Your task to perform on an android device: Go to ESPN.com Image 0: 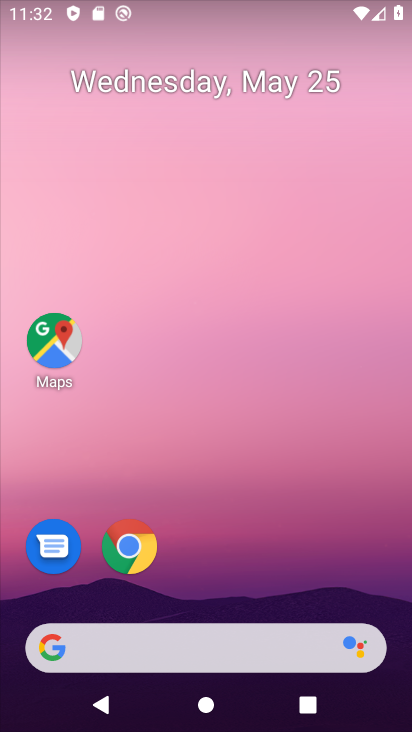
Step 0: click (133, 554)
Your task to perform on an android device: Go to ESPN.com Image 1: 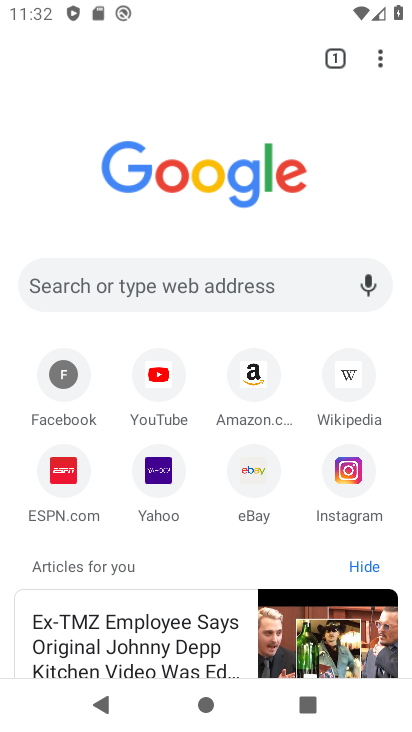
Step 1: click (45, 483)
Your task to perform on an android device: Go to ESPN.com Image 2: 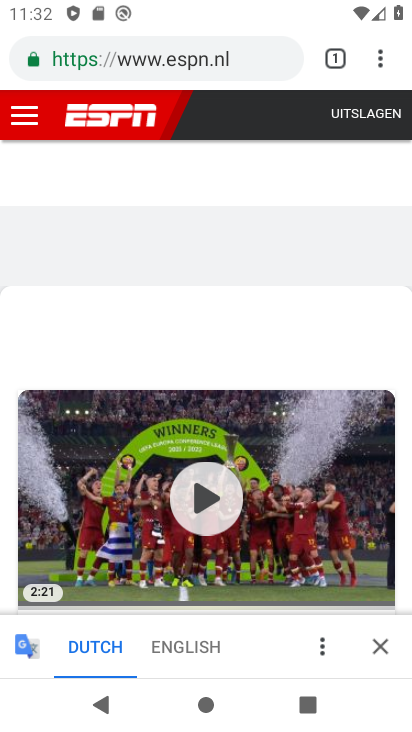
Step 2: task complete